Your task to perform on an android device: Open calendar and show me the second week of next month Image 0: 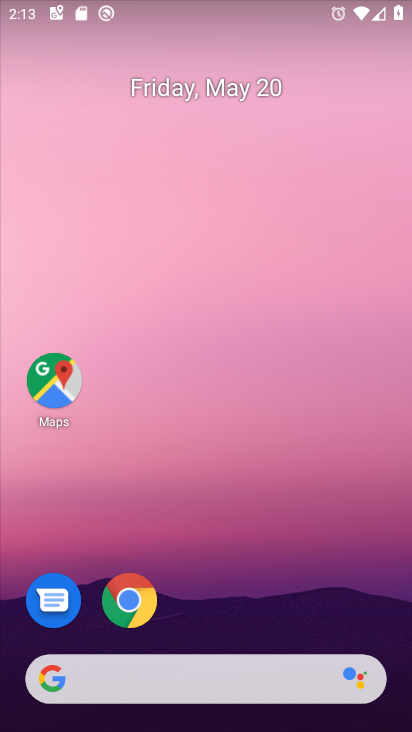
Step 0: drag from (251, 587) to (282, 149)
Your task to perform on an android device: Open calendar and show me the second week of next month Image 1: 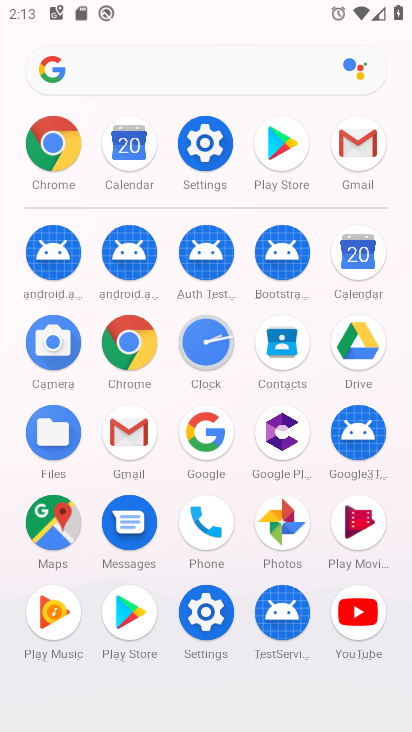
Step 1: click (342, 259)
Your task to perform on an android device: Open calendar and show me the second week of next month Image 2: 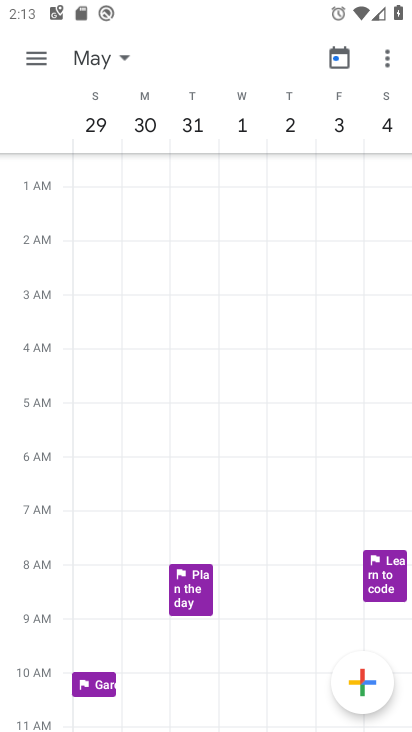
Step 2: task complete